Your task to perform on an android device: Go to battery settings Image 0: 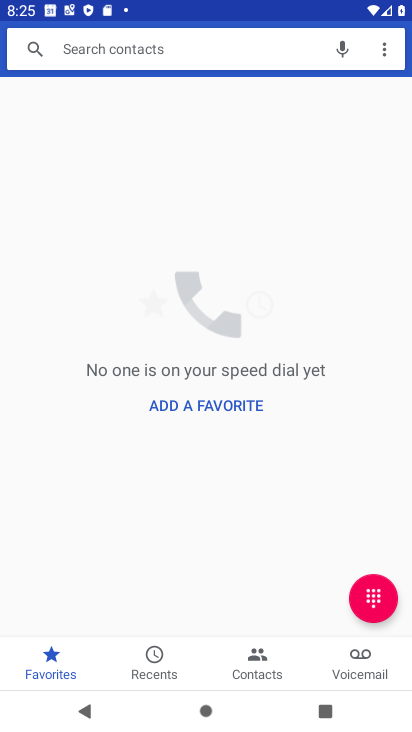
Step 0: press home button
Your task to perform on an android device: Go to battery settings Image 1: 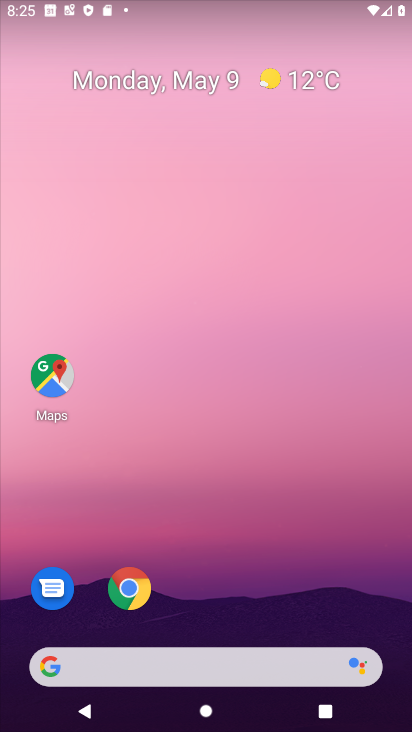
Step 1: drag from (193, 659) to (300, 75)
Your task to perform on an android device: Go to battery settings Image 2: 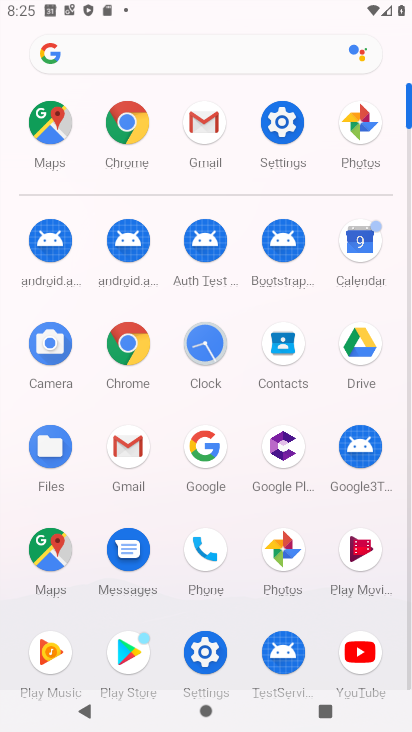
Step 2: click (272, 126)
Your task to perform on an android device: Go to battery settings Image 3: 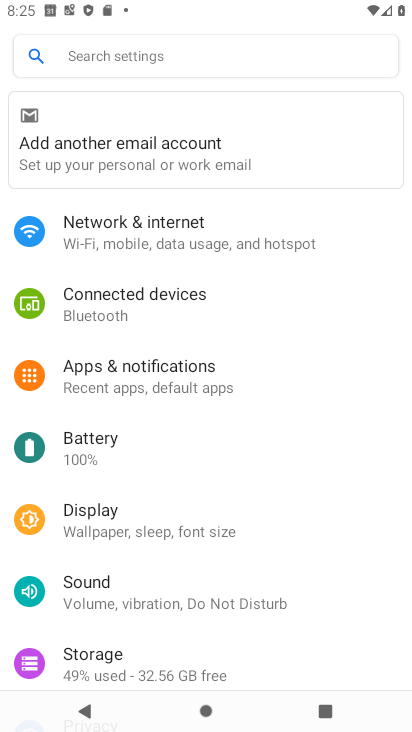
Step 3: click (91, 440)
Your task to perform on an android device: Go to battery settings Image 4: 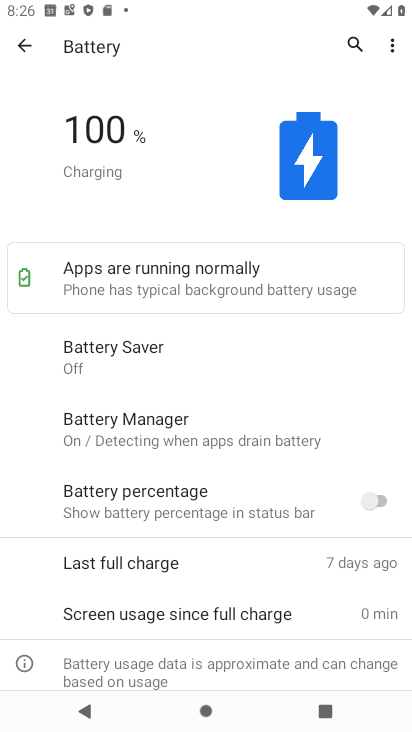
Step 4: task complete